Your task to perform on an android device: check android version Image 0: 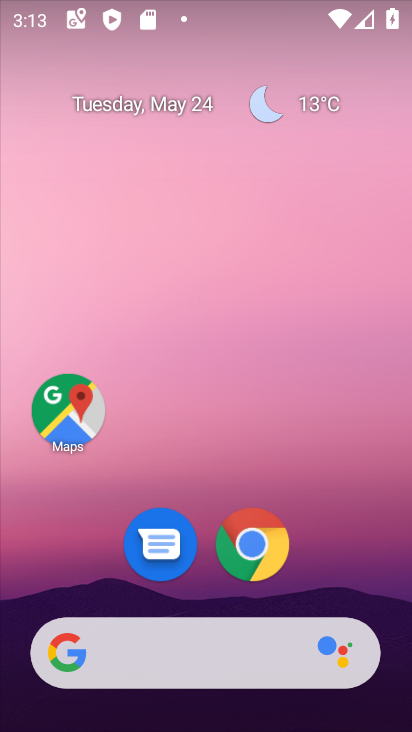
Step 0: drag from (350, 547) to (335, 1)
Your task to perform on an android device: check android version Image 1: 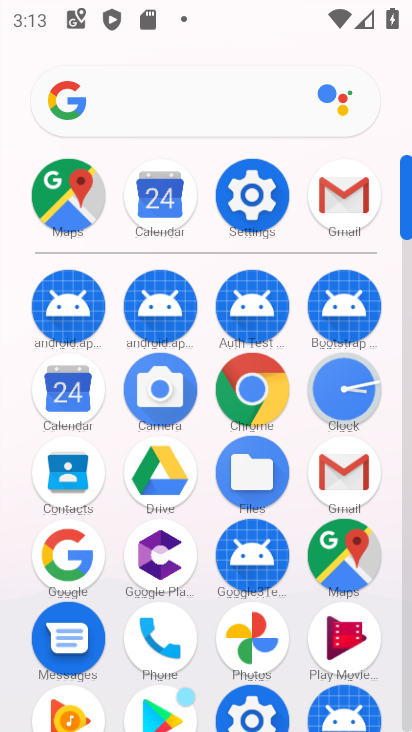
Step 1: click (265, 187)
Your task to perform on an android device: check android version Image 2: 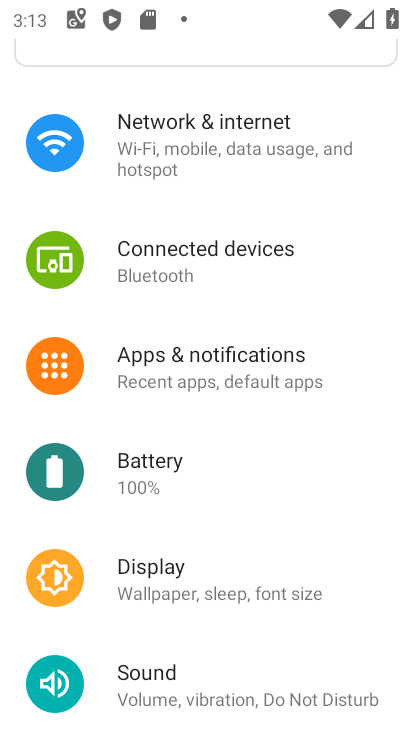
Step 2: drag from (232, 540) to (248, 114)
Your task to perform on an android device: check android version Image 3: 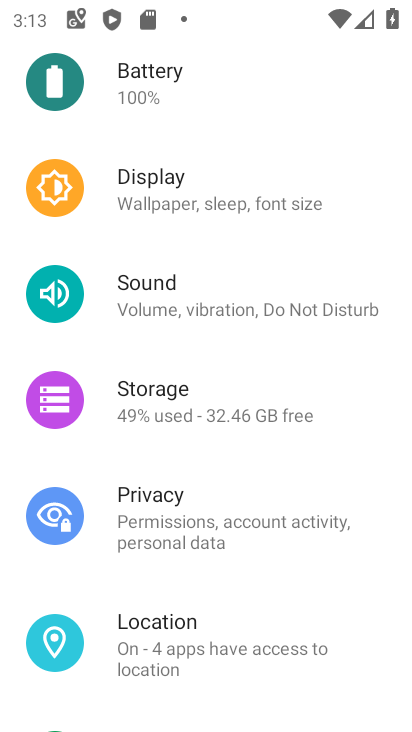
Step 3: drag from (235, 440) to (230, 154)
Your task to perform on an android device: check android version Image 4: 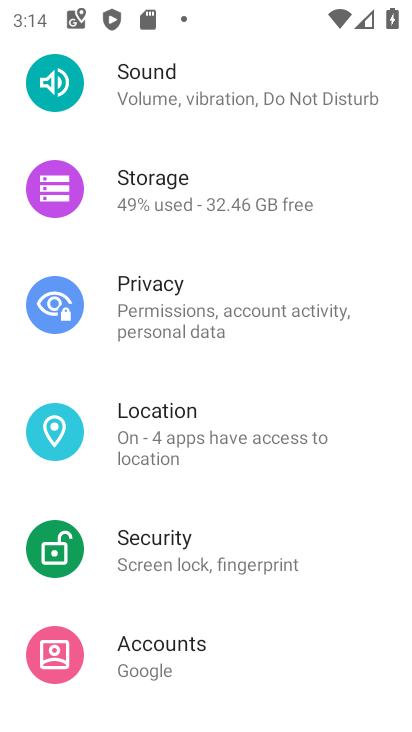
Step 4: drag from (230, 627) to (271, 97)
Your task to perform on an android device: check android version Image 5: 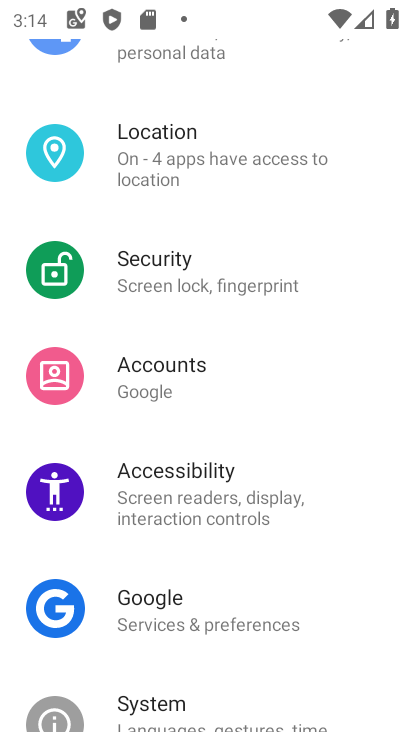
Step 5: drag from (261, 652) to (298, 82)
Your task to perform on an android device: check android version Image 6: 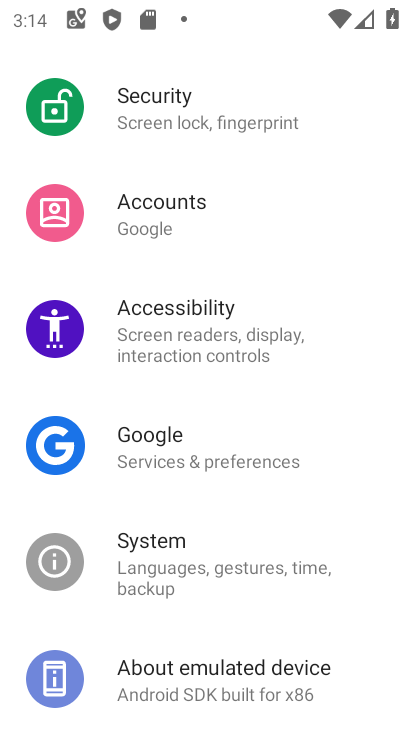
Step 6: drag from (237, 608) to (229, 175)
Your task to perform on an android device: check android version Image 7: 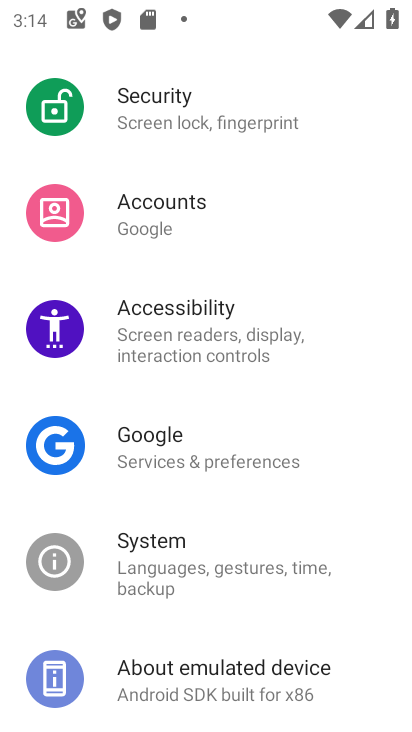
Step 7: click (253, 684)
Your task to perform on an android device: check android version Image 8: 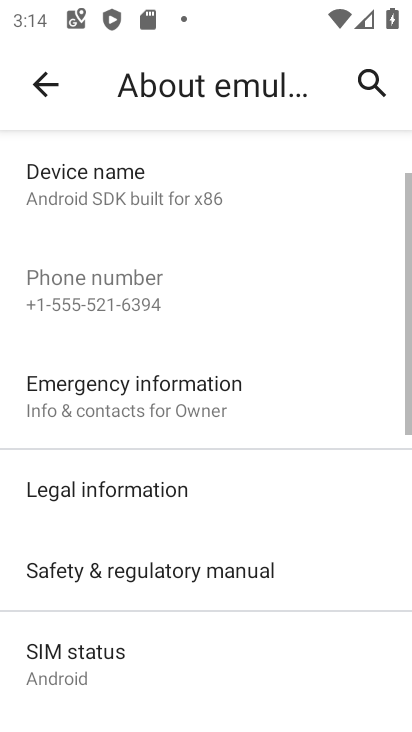
Step 8: task complete